Your task to perform on an android device: Open Yahoo.com Image 0: 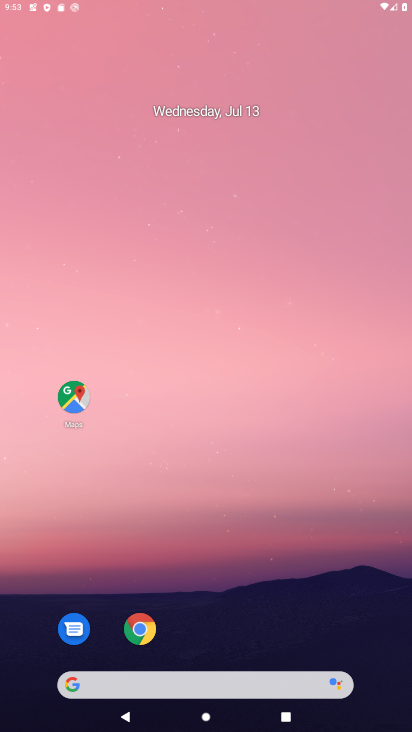
Step 0: press home button
Your task to perform on an android device: Open Yahoo.com Image 1: 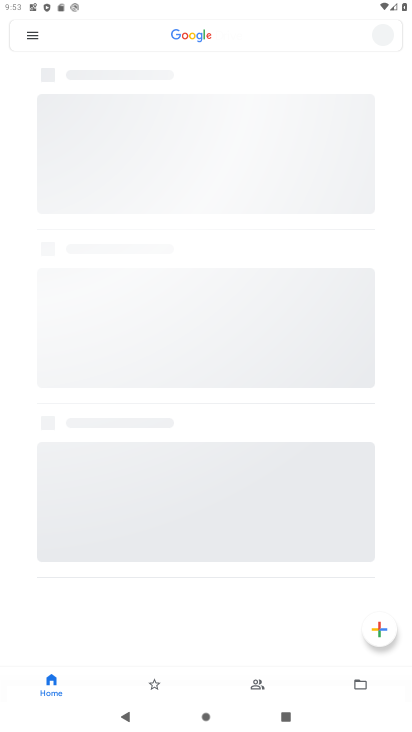
Step 1: click (235, 33)
Your task to perform on an android device: Open Yahoo.com Image 2: 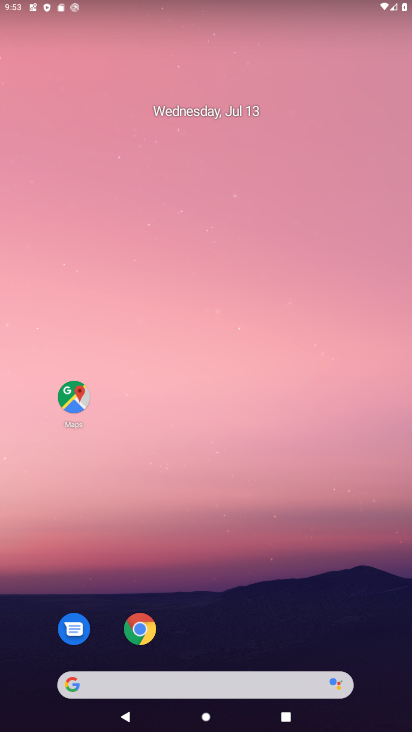
Step 2: click (137, 624)
Your task to perform on an android device: Open Yahoo.com Image 3: 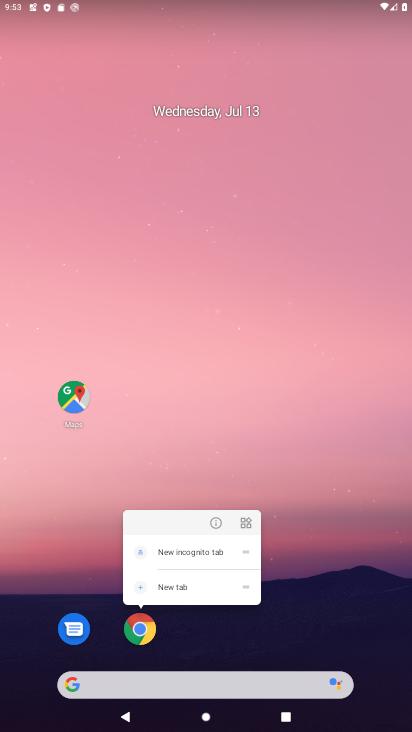
Step 3: click (137, 624)
Your task to perform on an android device: Open Yahoo.com Image 4: 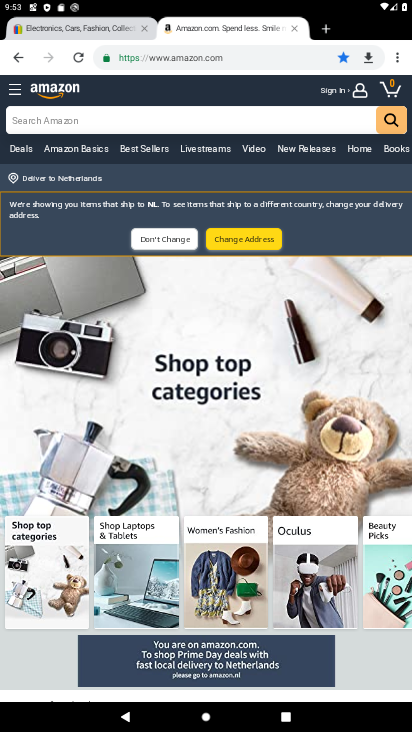
Step 4: click (327, 27)
Your task to perform on an android device: Open Yahoo.com Image 5: 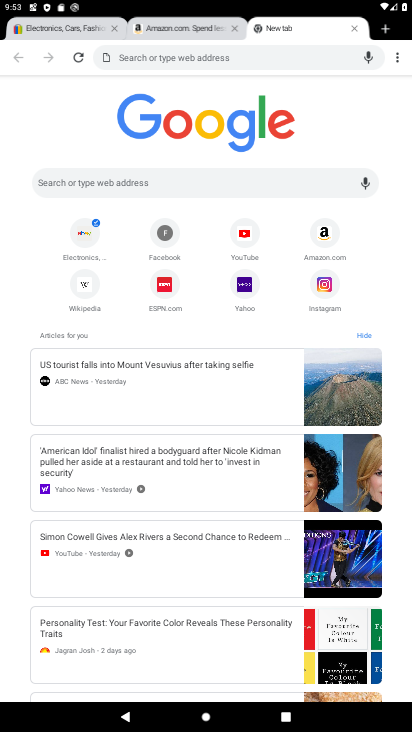
Step 5: click (245, 282)
Your task to perform on an android device: Open Yahoo.com Image 6: 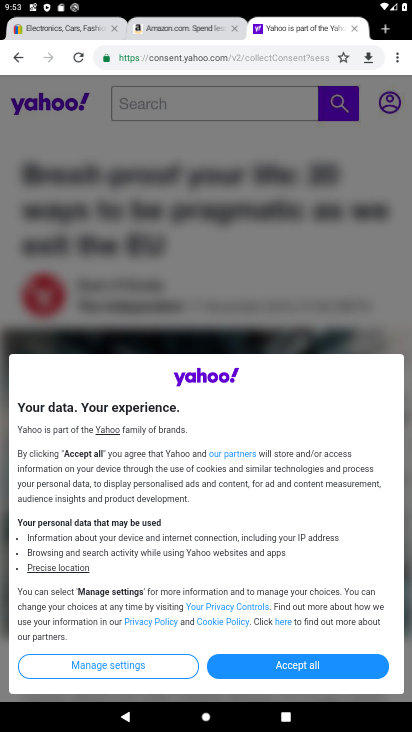
Step 6: click (290, 663)
Your task to perform on an android device: Open Yahoo.com Image 7: 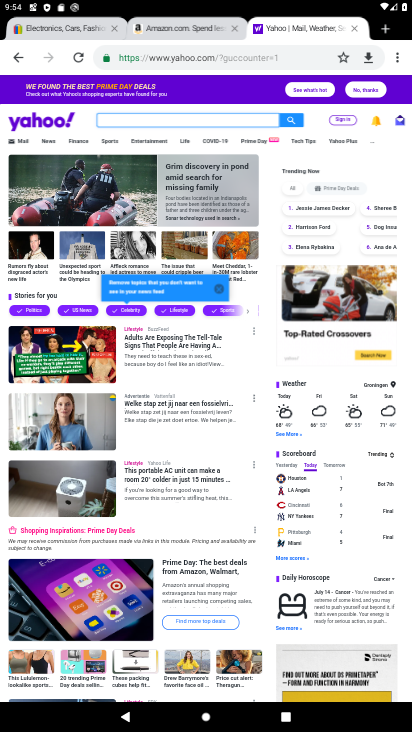
Step 7: task complete